Your task to perform on an android device: toggle javascript in the chrome app Image 0: 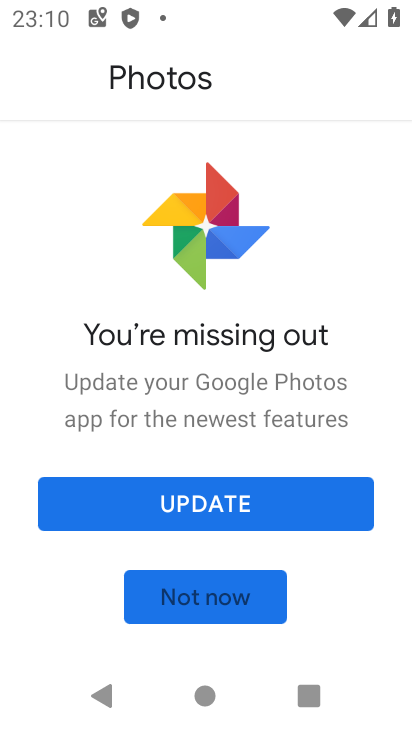
Step 0: press home button
Your task to perform on an android device: toggle javascript in the chrome app Image 1: 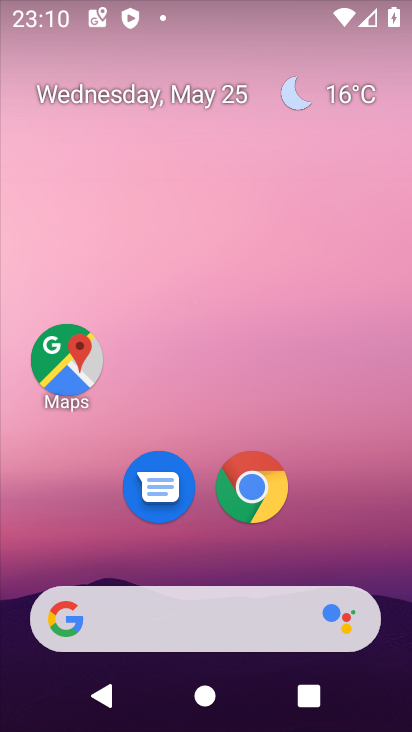
Step 1: click (251, 485)
Your task to perform on an android device: toggle javascript in the chrome app Image 2: 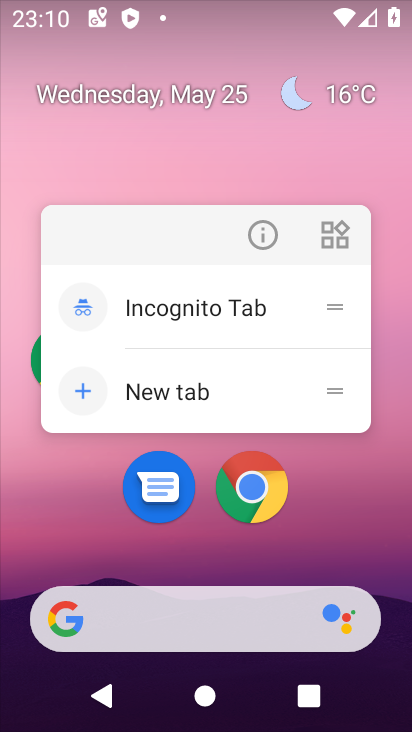
Step 2: click (235, 493)
Your task to perform on an android device: toggle javascript in the chrome app Image 3: 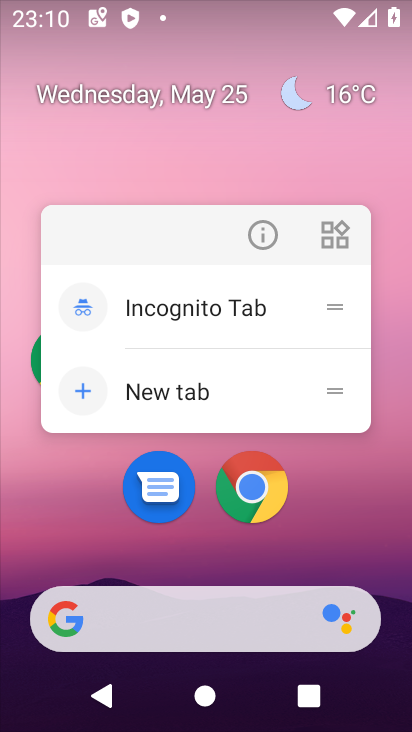
Step 3: click (235, 493)
Your task to perform on an android device: toggle javascript in the chrome app Image 4: 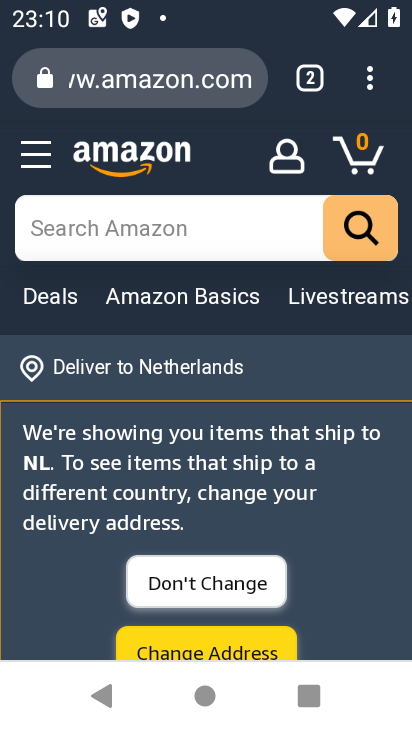
Step 4: click (373, 78)
Your task to perform on an android device: toggle javascript in the chrome app Image 5: 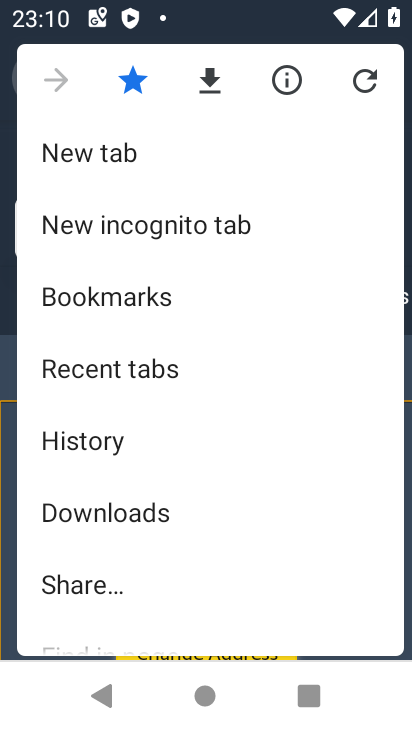
Step 5: drag from (248, 613) to (222, 102)
Your task to perform on an android device: toggle javascript in the chrome app Image 6: 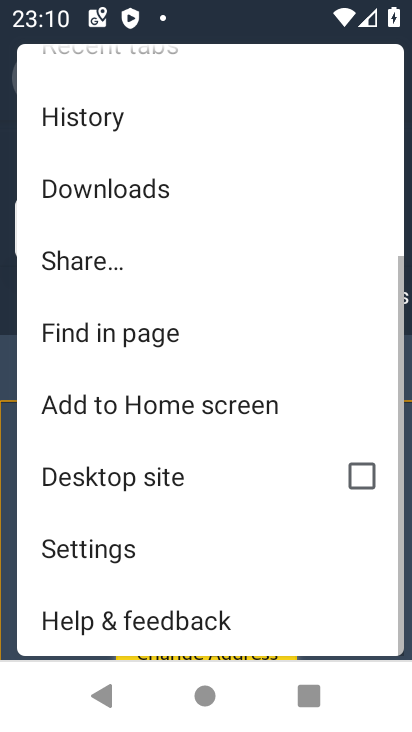
Step 6: click (150, 544)
Your task to perform on an android device: toggle javascript in the chrome app Image 7: 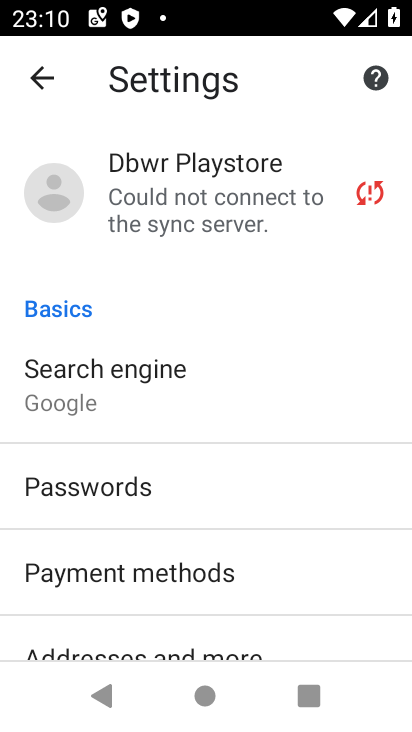
Step 7: drag from (316, 609) to (326, 164)
Your task to perform on an android device: toggle javascript in the chrome app Image 8: 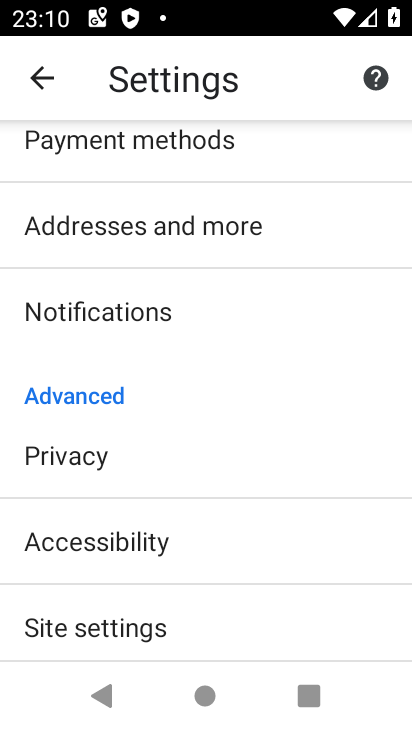
Step 8: click (161, 622)
Your task to perform on an android device: toggle javascript in the chrome app Image 9: 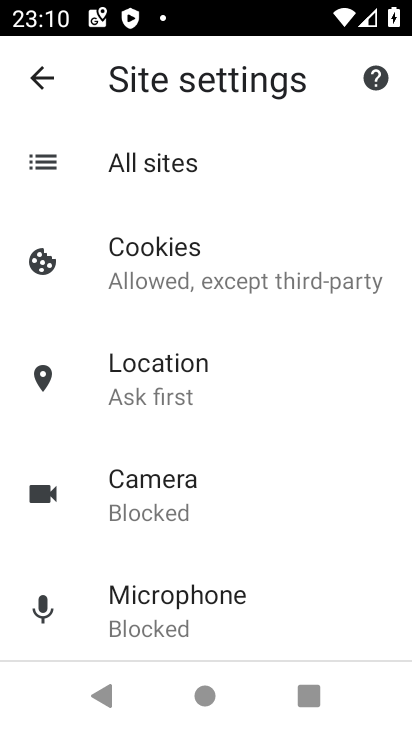
Step 9: drag from (306, 596) to (258, 42)
Your task to perform on an android device: toggle javascript in the chrome app Image 10: 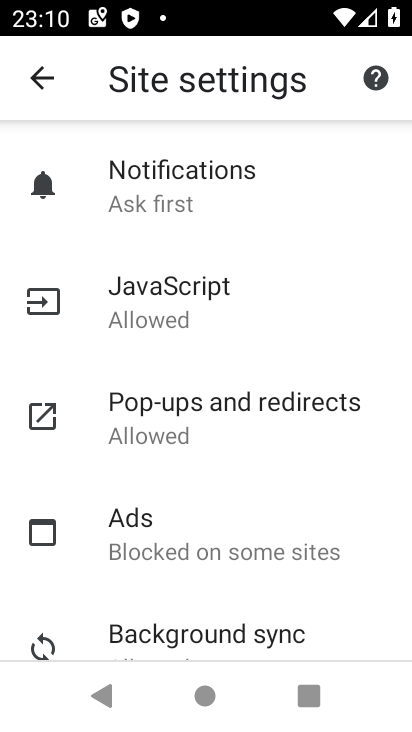
Step 10: click (102, 313)
Your task to perform on an android device: toggle javascript in the chrome app Image 11: 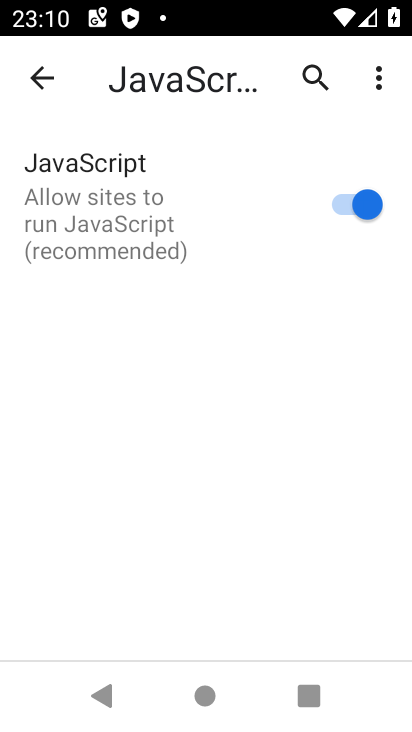
Step 11: click (357, 200)
Your task to perform on an android device: toggle javascript in the chrome app Image 12: 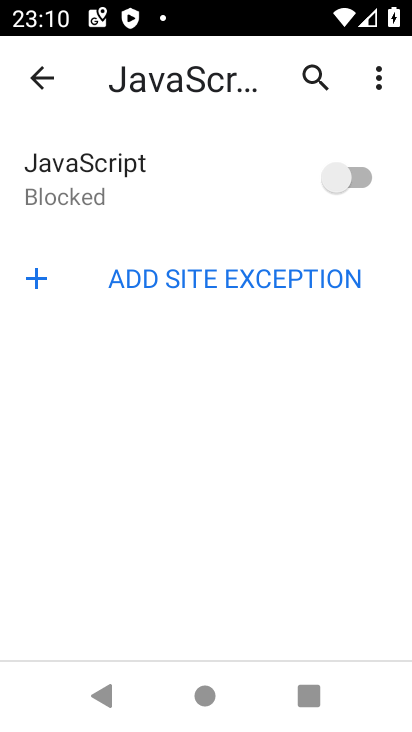
Step 12: task complete